Your task to perform on an android device: What's the weather? Image 0: 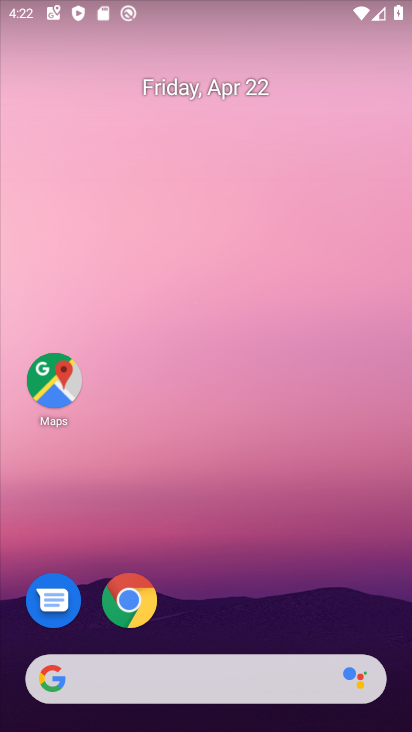
Step 0: drag from (256, 702) to (35, 206)
Your task to perform on an android device: What's the weather? Image 1: 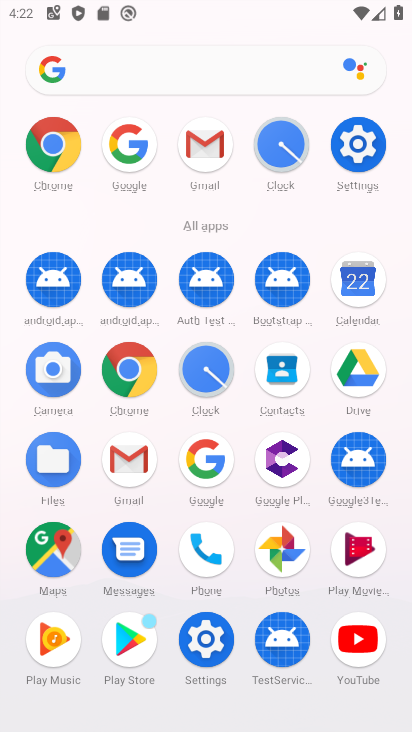
Step 1: click (125, 168)
Your task to perform on an android device: What's the weather? Image 2: 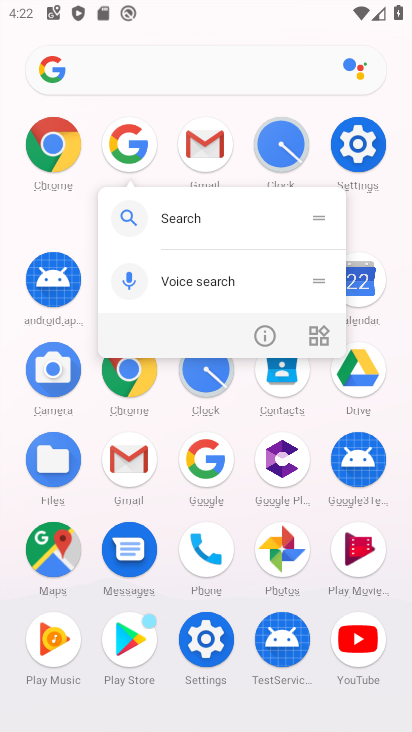
Step 2: click (125, 168)
Your task to perform on an android device: What's the weather? Image 3: 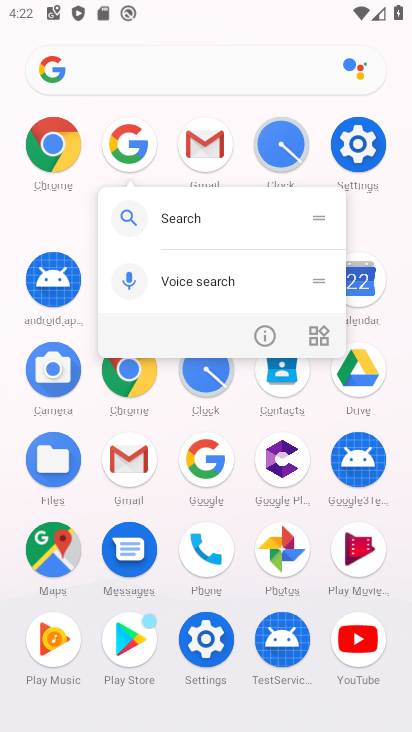
Step 3: click (125, 168)
Your task to perform on an android device: What's the weather? Image 4: 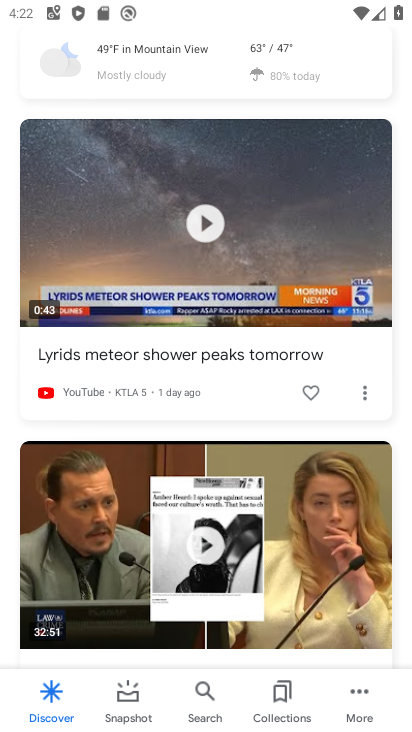
Step 4: task complete